Your task to perform on an android device: make emails show in primary in the gmail app Image 0: 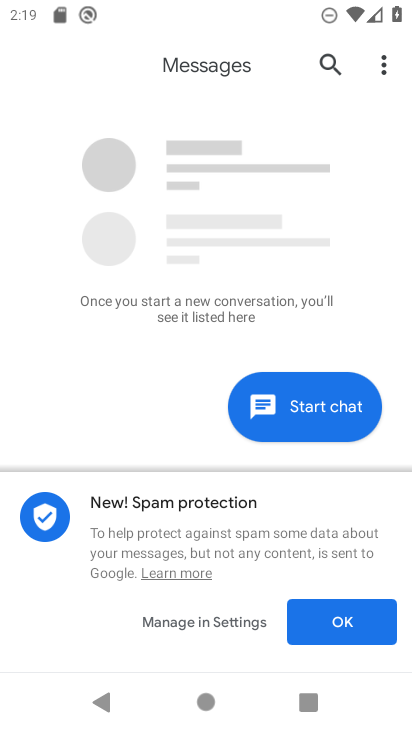
Step 0: press back button
Your task to perform on an android device: make emails show in primary in the gmail app Image 1: 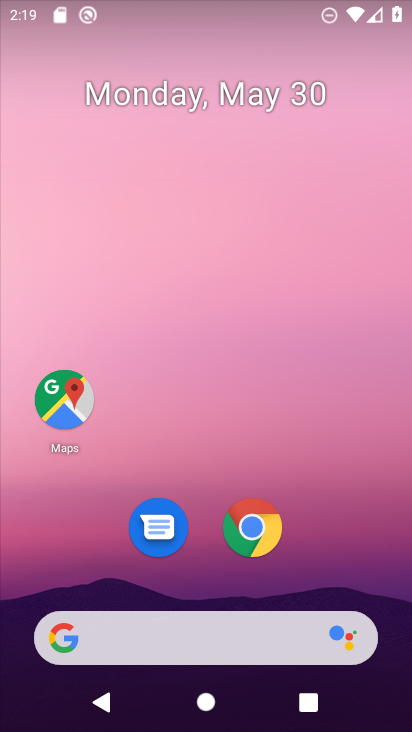
Step 1: drag from (201, 621) to (372, 36)
Your task to perform on an android device: make emails show in primary in the gmail app Image 2: 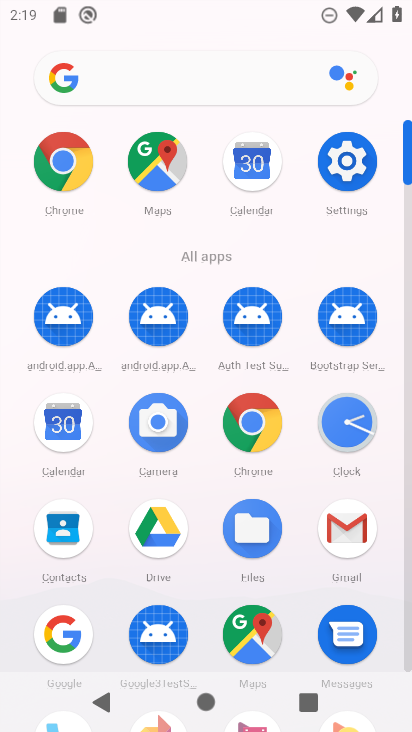
Step 2: click (351, 532)
Your task to perform on an android device: make emails show in primary in the gmail app Image 3: 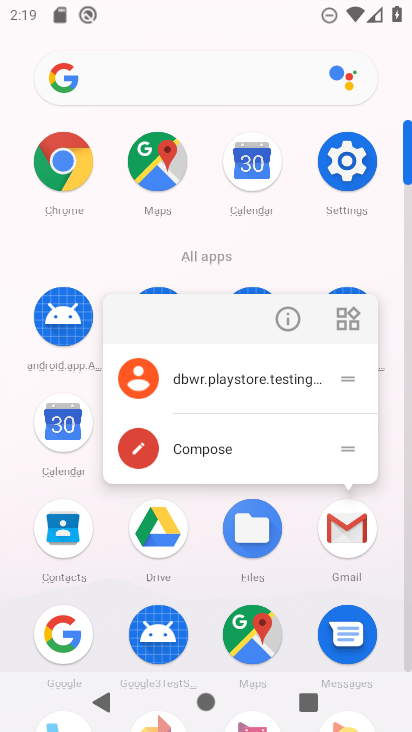
Step 3: click (221, 381)
Your task to perform on an android device: make emails show in primary in the gmail app Image 4: 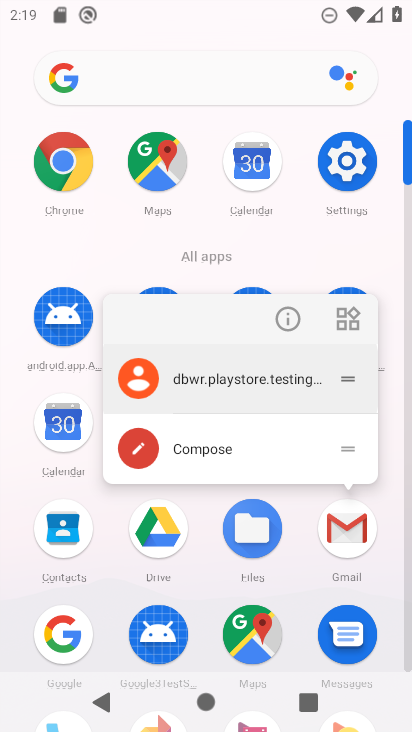
Step 4: click (218, 377)
Your task to perform on an android device: make emails show in primary in the gmail app Image 5: 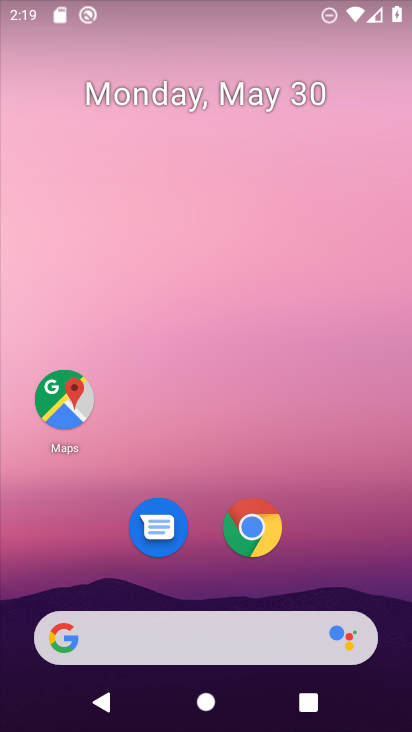
Step 5: drag from (256, 703) to (182, 245)
Your task to perform on an android device: make emails show in primary in the gmail app Image 6: 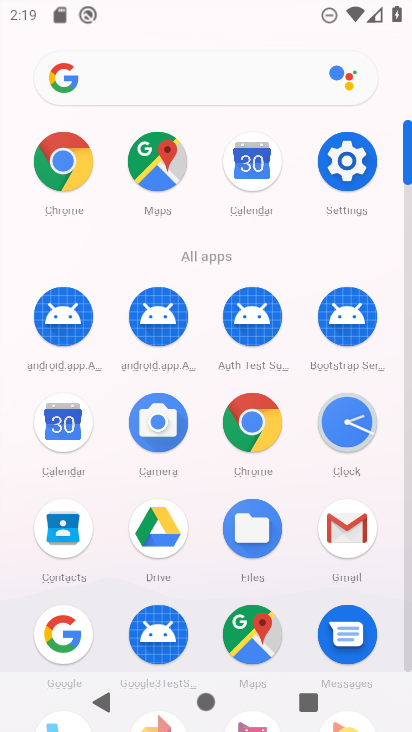
Step 6: click (334, 487)
Your task to perform on an android device: make emails show in primary in the gmail app Image 7: 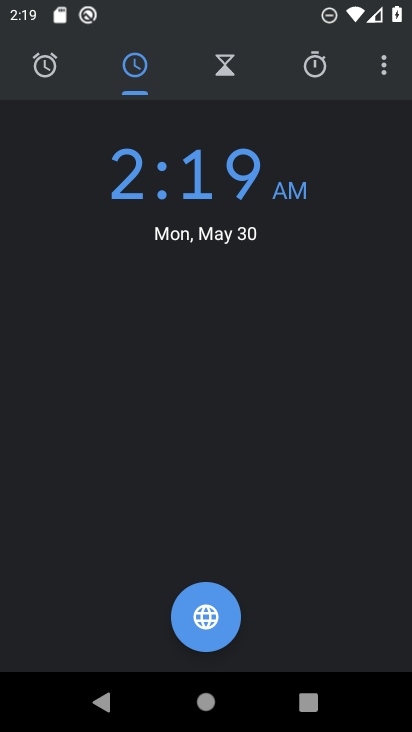
Step 7: press home button
Your task to perform on an android device: make emails show in primary in the gmail app Image 8: 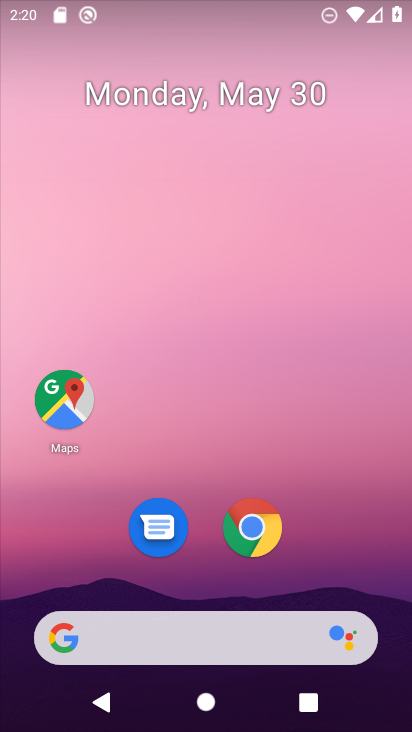
Step 8: click (187, 119)
Your task to perform on an android device: make emails show in primary in the gmail app Image 9: 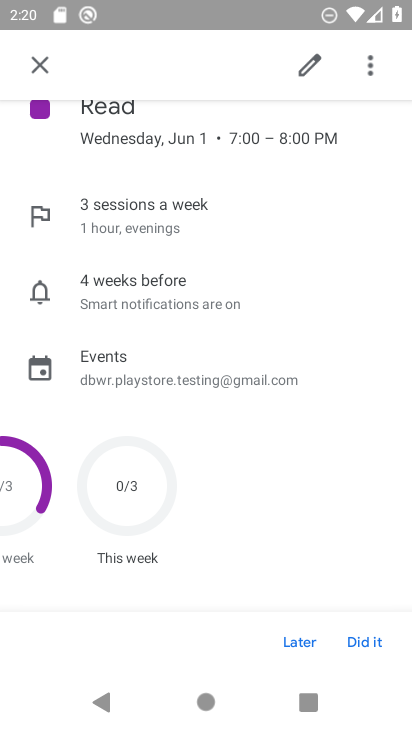
Step 9: click (37, 62)
Your task to perform on an android device: make emails show in primary in the gmail app Image 10: 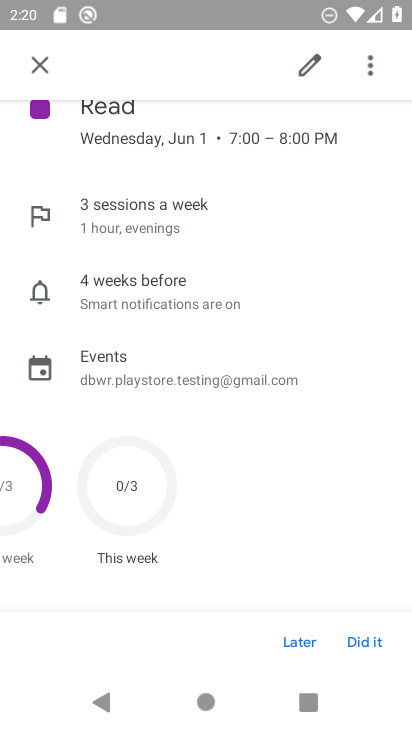
Step 10: click (37, 62)
Your task to perform on an android device: make emails show in primary in the gmail app Image 11: 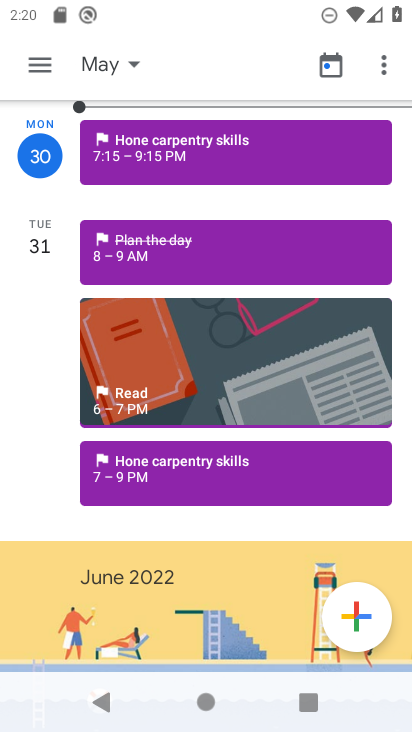
Step 11: press home button
Your task to perform on an android device: make emails show in primary in the gmail app Image 12: 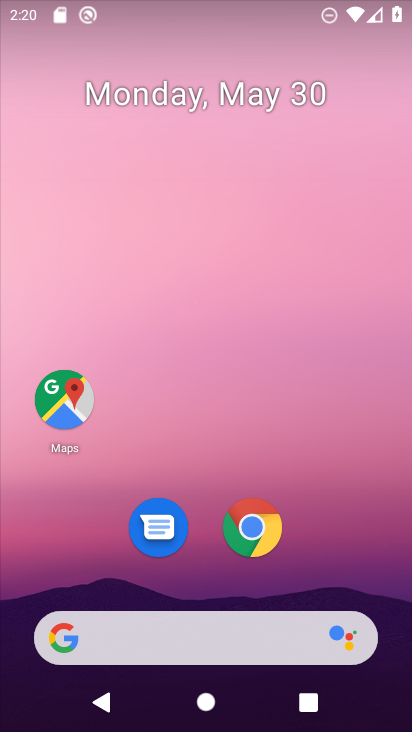
Step 12: drag from (257, 641) to (206, 2)
Your task to perform on an android device: make emails show in primary in the gmail app Image 13: 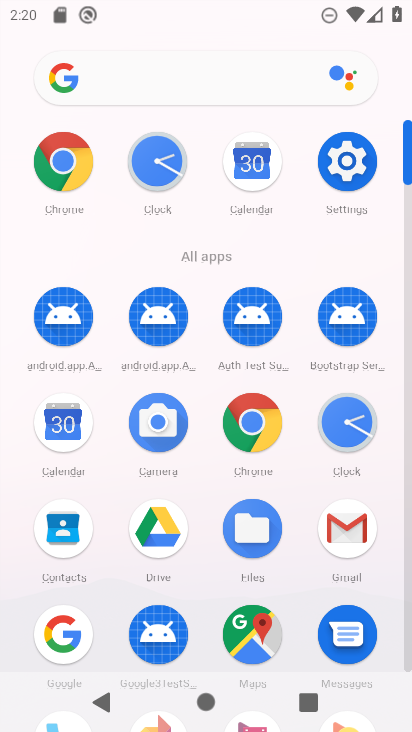
Step 13: click (346, 504)
Your task to perform on an android device: make emails show in primary in the gmail app Image 14: 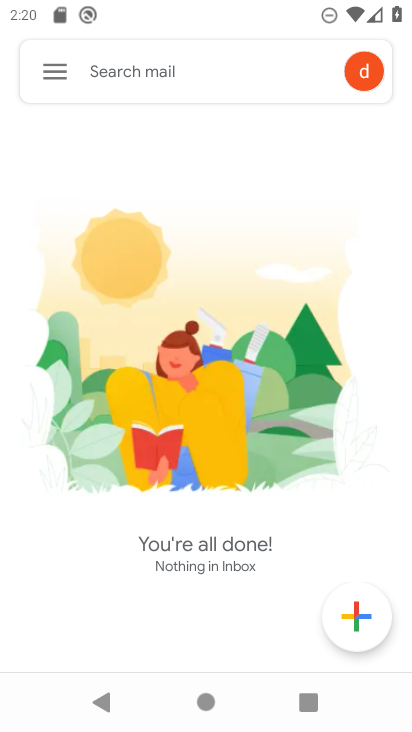
Step 14: click (58, 66)
Your task to perform on an android device: make emails show in primary in the gmail app Image 15: 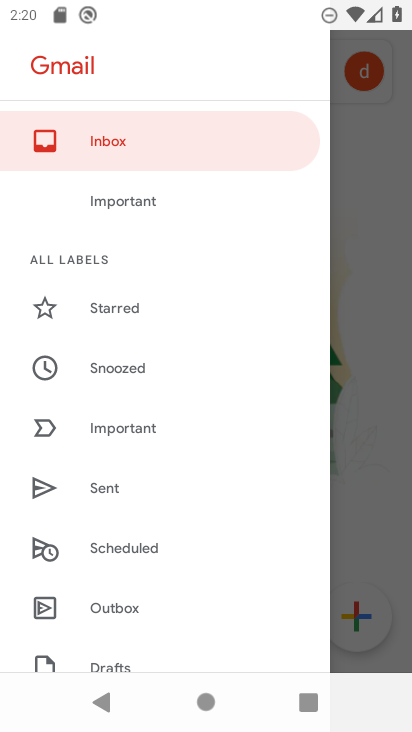
Step 15: drag from (123, 491) to (81, 112)
Your task to perform on an android device: make emails show in primary in the gmail app Image 16: 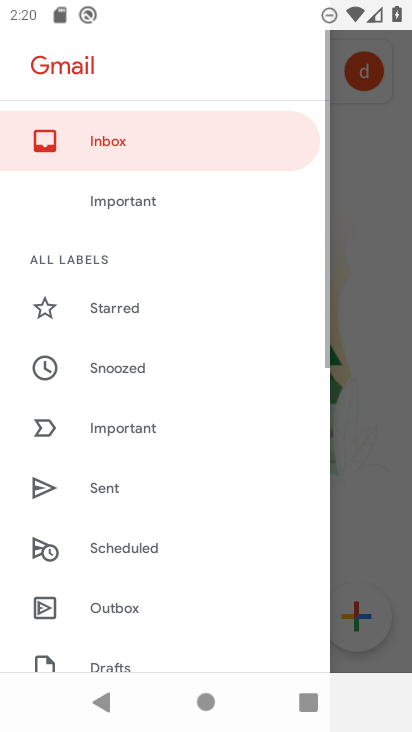
Step 16: click (231, 233)
Your task to perform on an android device: make emails show in primary in the gmail app Image 17: 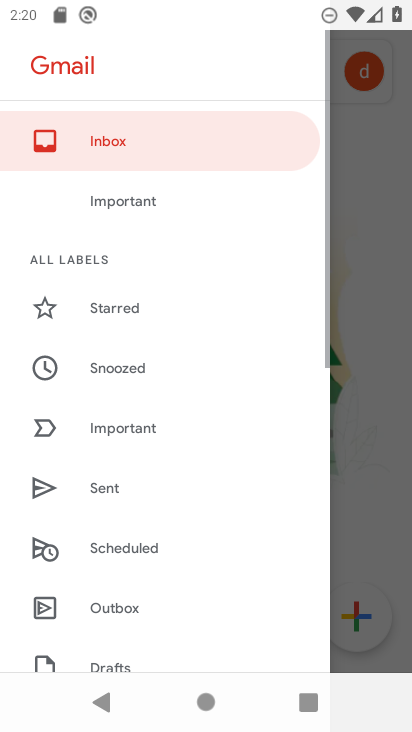
Step 17: drag from (166, 488) to (147, 196)
Your task to perform on an android device: make emails show in primary in the gmail app Image 18: 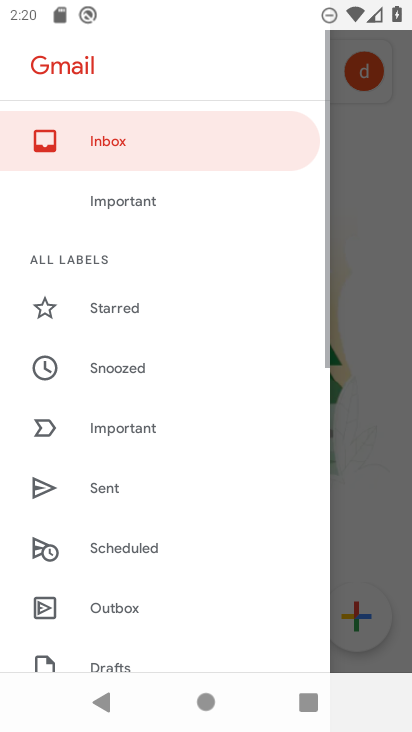
Step 18: drag from (148, 416) to (146, 207)
Your task to perform on an android device: make emails show in primary in the gmail app Image 19: 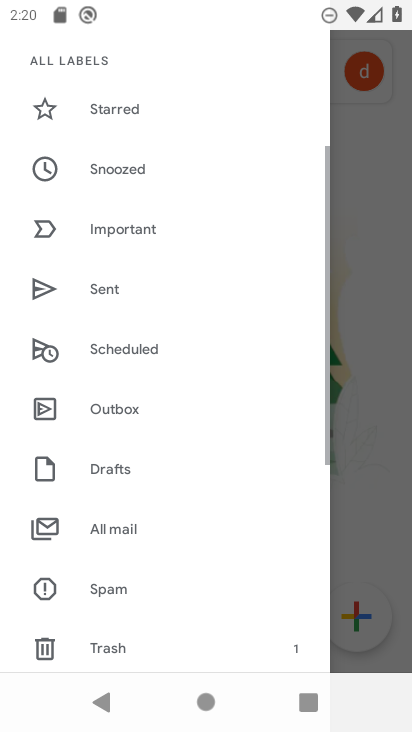
Step 19: click (127, 122)
Your task to perform on an android device: make emails show in primary in the gmail app Image 20: 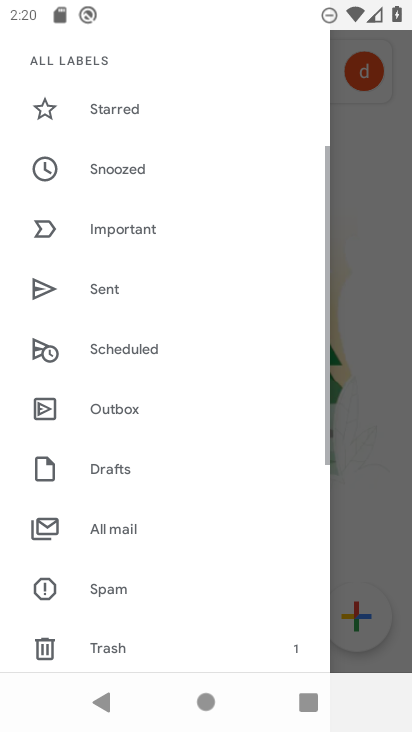
Step 20: drag from (162, 510) to (173, 148)
Your task to perform on an android device: make emails show in primary in the gmail app Image 21: 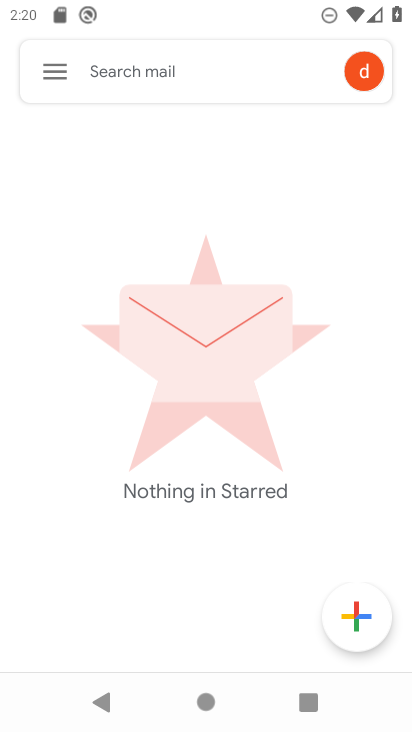
Step 21: click (53, 76)
Your task to perform on an android device: make emails show in primary in the gmail app Image 22: 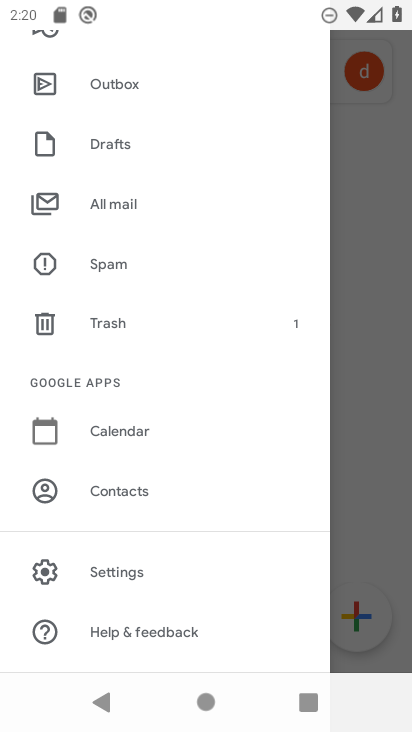
Step 22: click (118, 565)
Your task to perform on an android device: make emails show in primary in the gmail app Image 23: 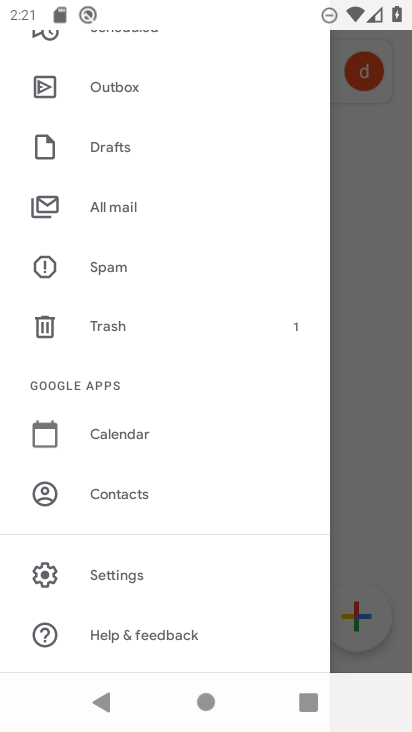
Step 23: click (100, 565)
Your task to perform on an android device: make emails show in primary in the gmail app Image 24: 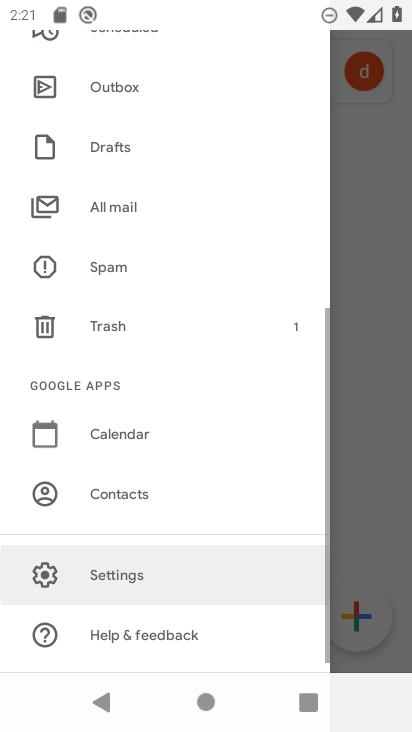
Step 24: click (97, 564)
Your task to perform on an android device: make emails show in primary in the gmail app Image 25: 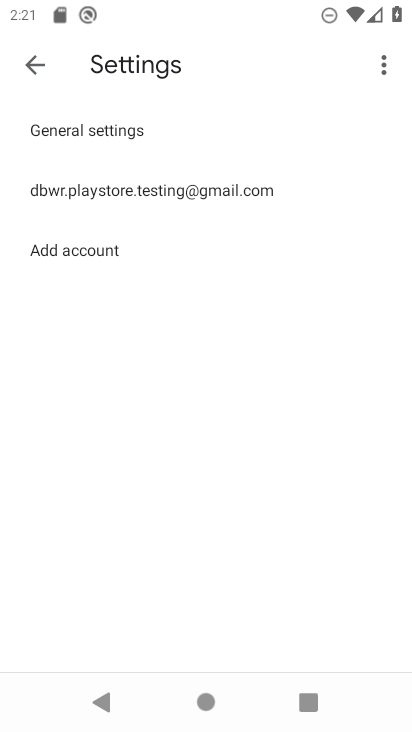
Step 25: click (141, 188)
Your task to perform on an android device: make emails show in primary in the gmail app Image 26: 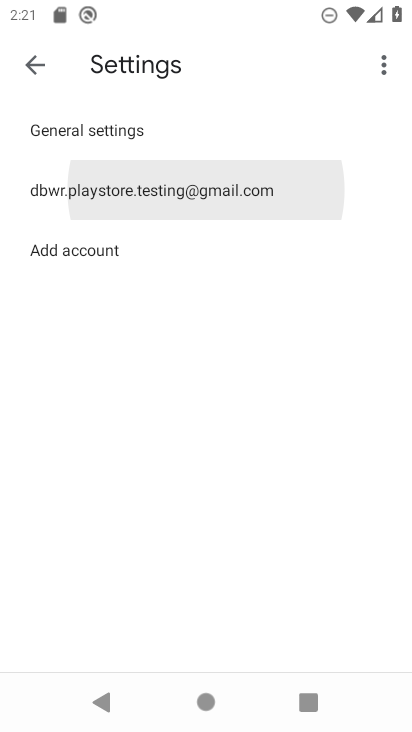
Step 26: click (141, 188)
Your task to perform on an android device: make emails show in primary in the gmail app Image 27: 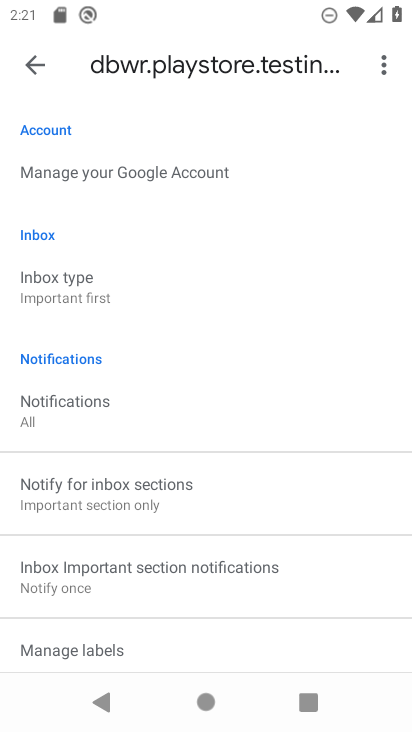
Step 27: click (50, 280)
Your task to perform on an android device: make emails show in primary in the gmail app Image 28: 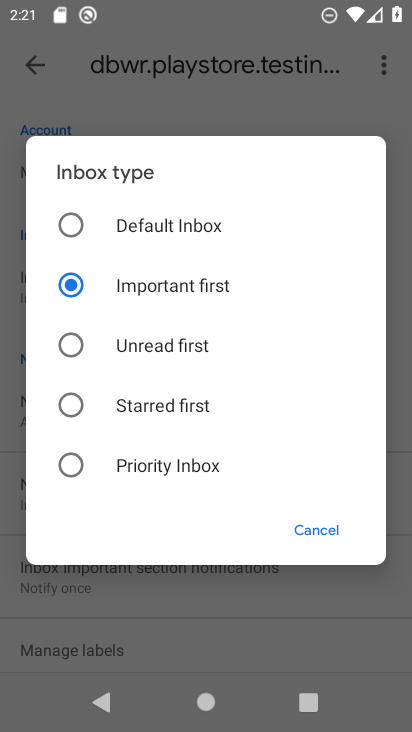
Step 28: click (73, 224)
Your task to perform on an android device: make emails show in primary in the gmail app Image 29: 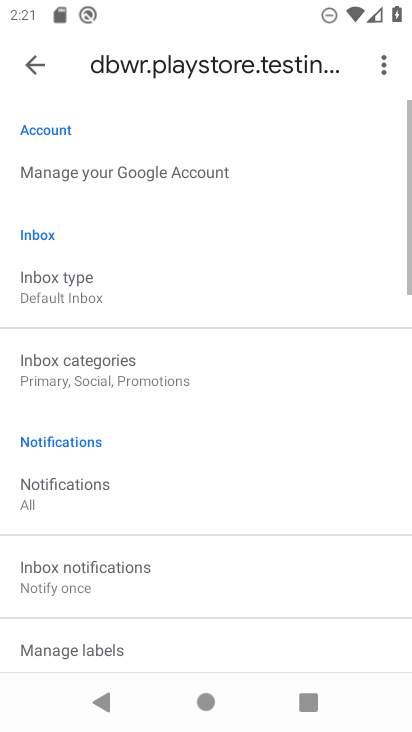
Step 29: click (92, 367)
Your task to perform on an android device: make emails show in primary in the gmail app Image 30: 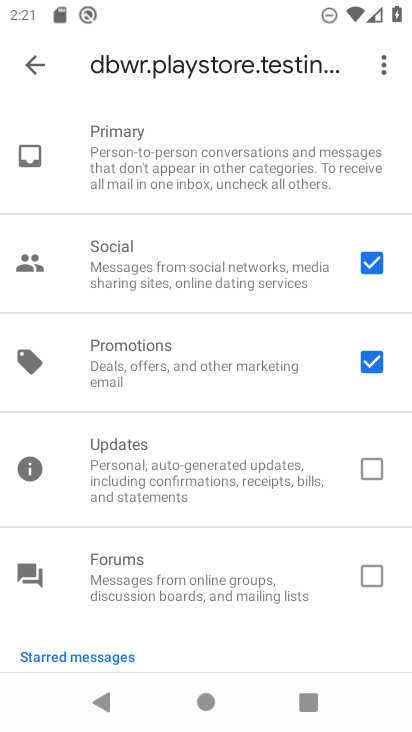
Step 30: click (103, 174)
Your task to perform on an android device: make emails show in primary in the gmail app Image 31: 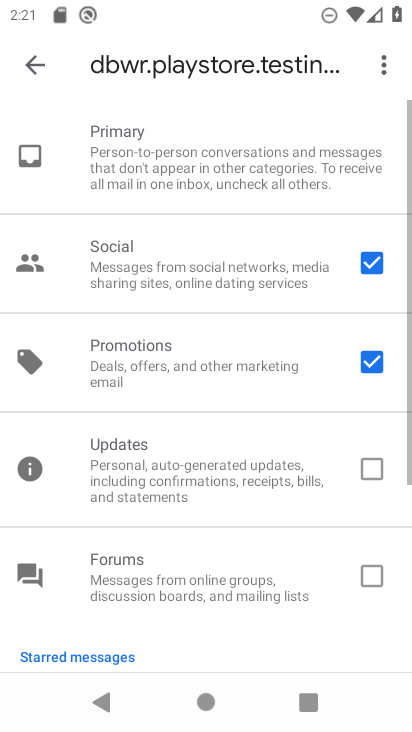
Step 31: task complete